Your task to perform on an android device: search for starred emails in the gmail app Image 0: 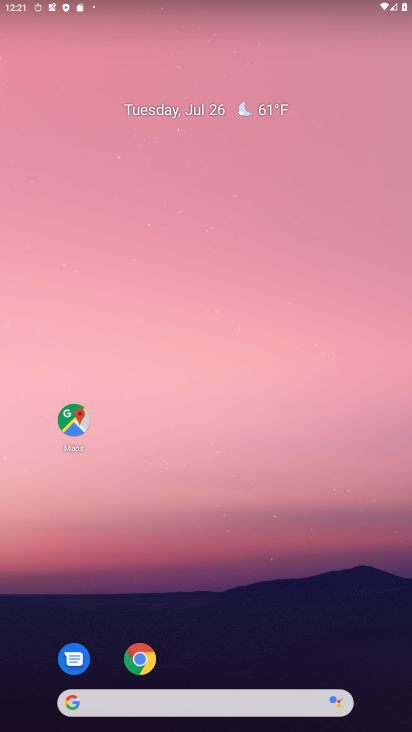
Step 0: drag from (14, 670) to (185, 229)
Your task to perform on an android device: search for starred emails in the gmail app Image 1: 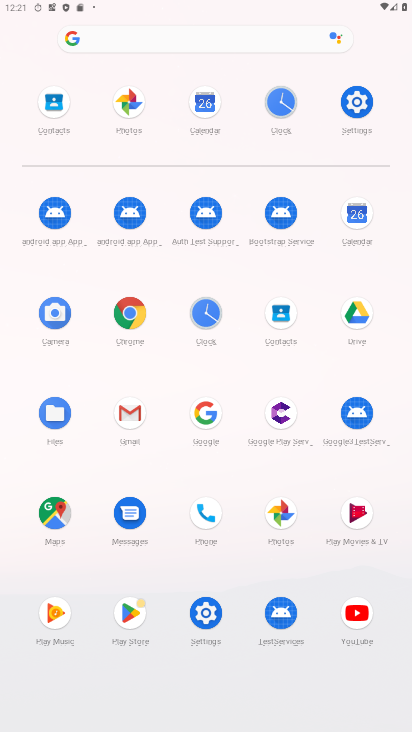
Step 1: click (140, 416)
Your task to perform on an android device: search for starred emails in the gmail app Image 2: 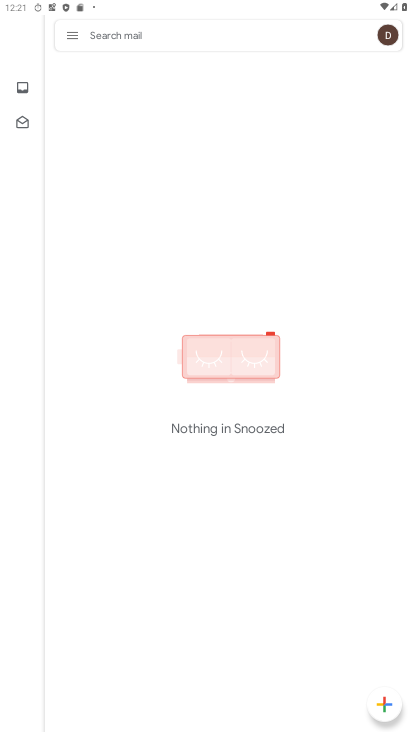
Step 2: click (66, 26)
Your task to perform on an android device: search for starred emails in the gmail app Image 3: 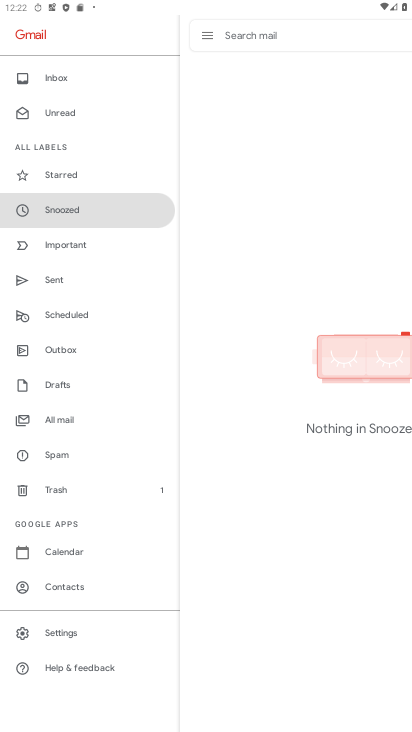
Step 3: click (69, 172)
Your task to perform on an android device: search for starred emails in the gmail app Image 4: 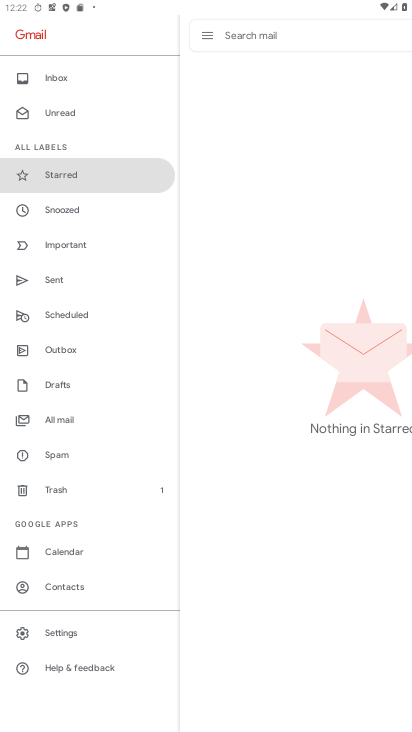
Step 4: task complete